Your task to perform on an android device: read, delete, or share a saved page in the chrome app Image 0: 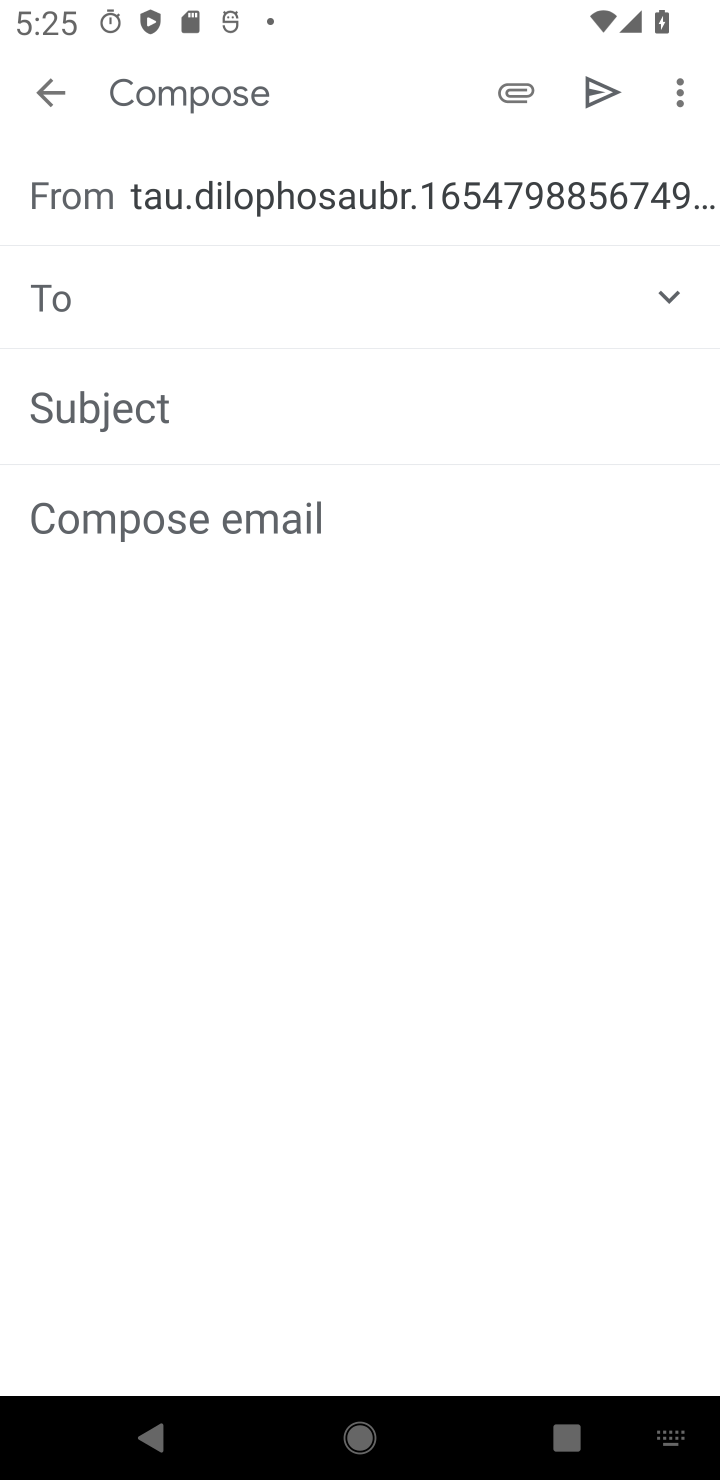
Step 0: click (51, 89)
Your task to perform on an android device: read, delete, or share a saved page in the chrome app Image 1: 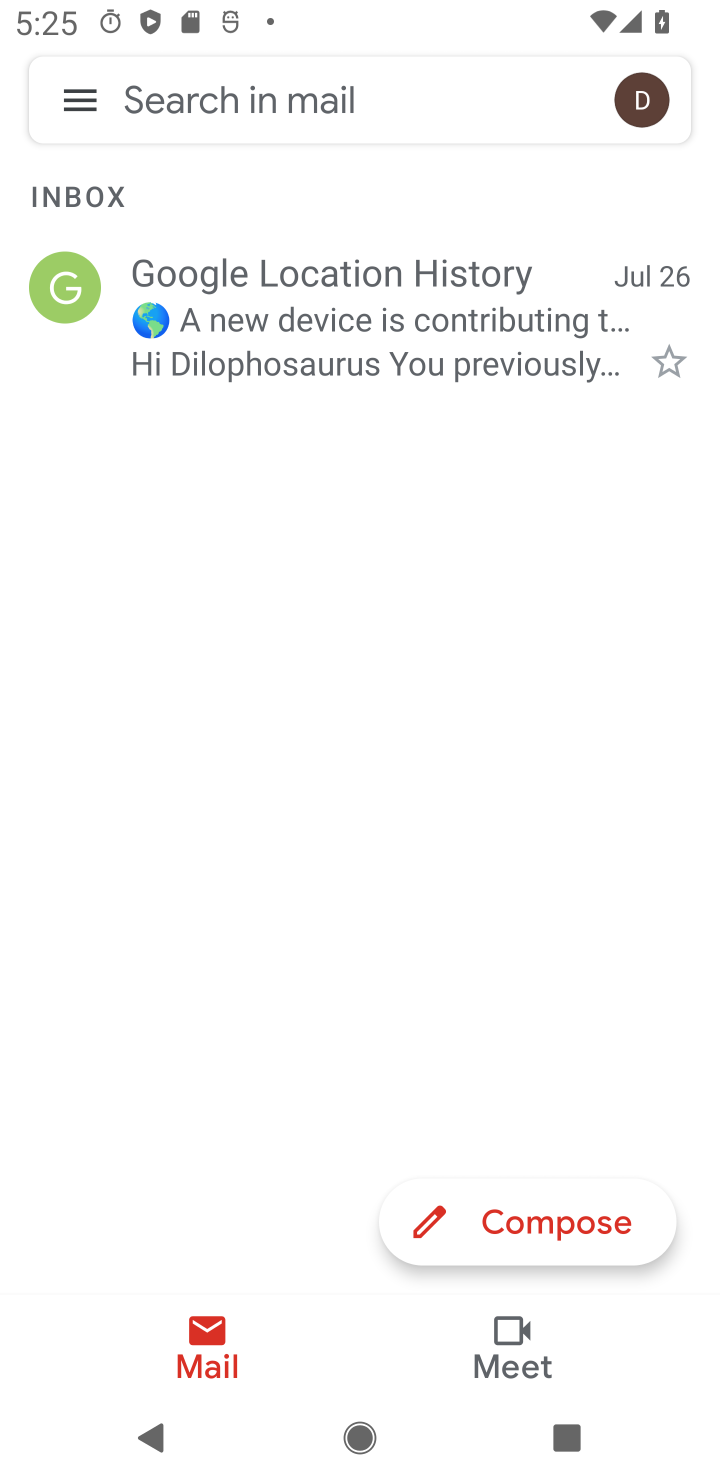
Step 1: press back button
Your task to perform on an android device: read, delete, or share a saved page in the chrome app Image 2: 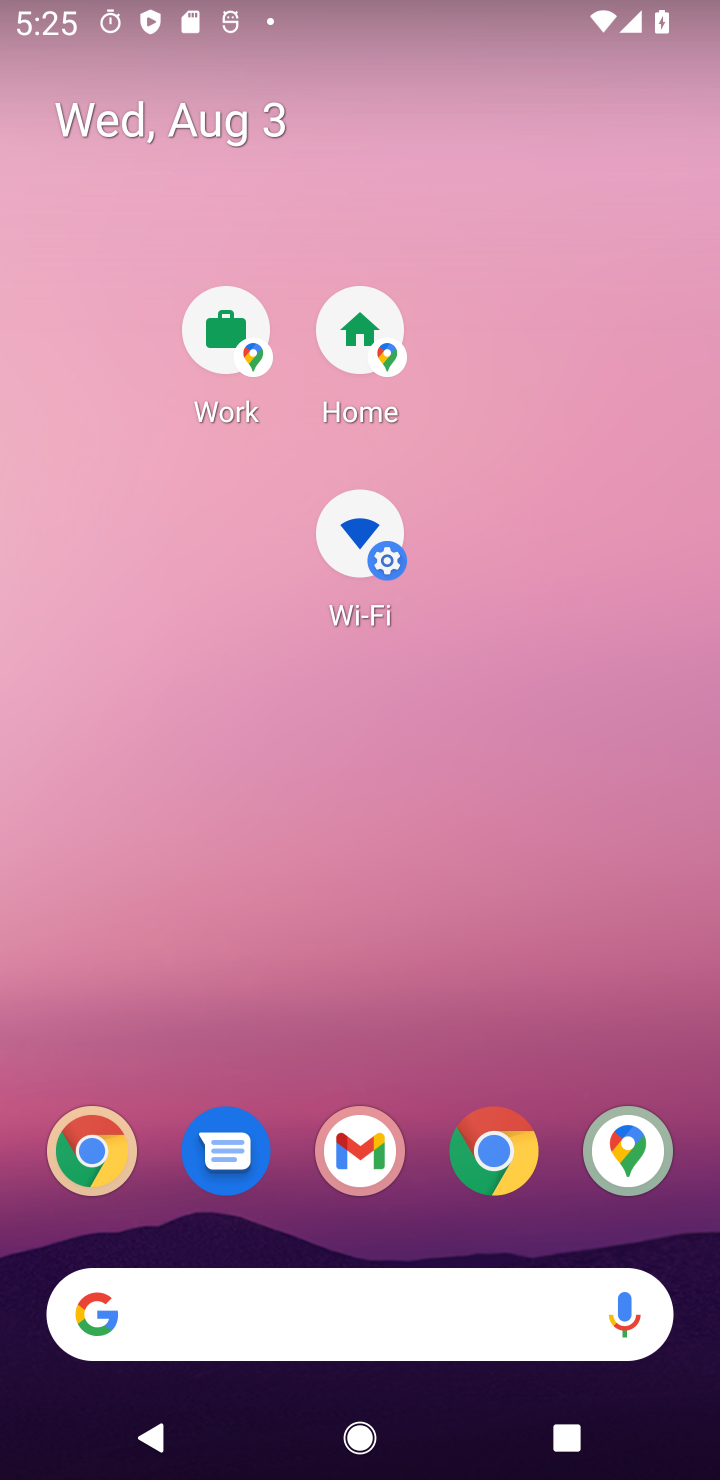
Step 2: drag from (435, 1320) to (341, 624)
Your task to perform on an android device: read, delete, or share a saved page in the chrome app Image 3: 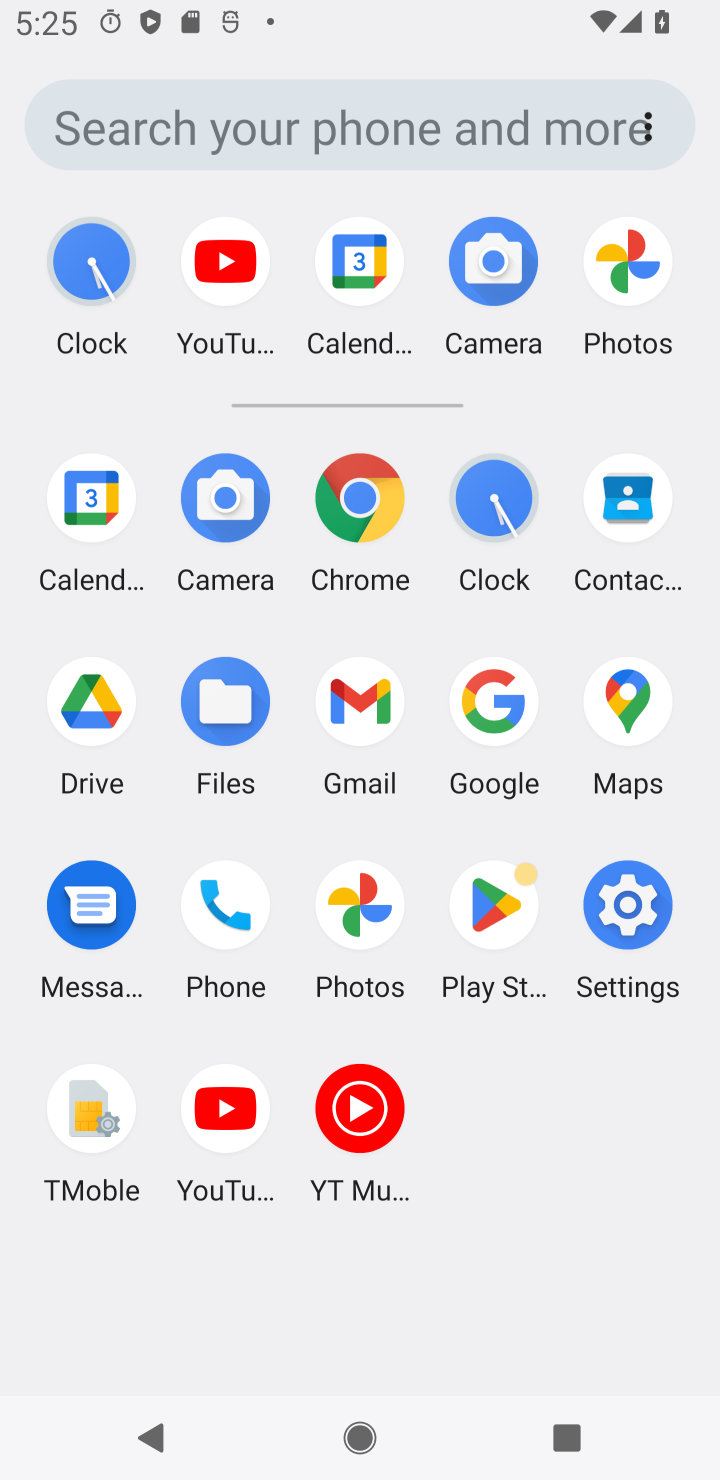
Step 3: drag from (443, 949) to (254, 294)
Your task to perform on an android device: read, delete, or share a saved page in the chrome app Image 4: 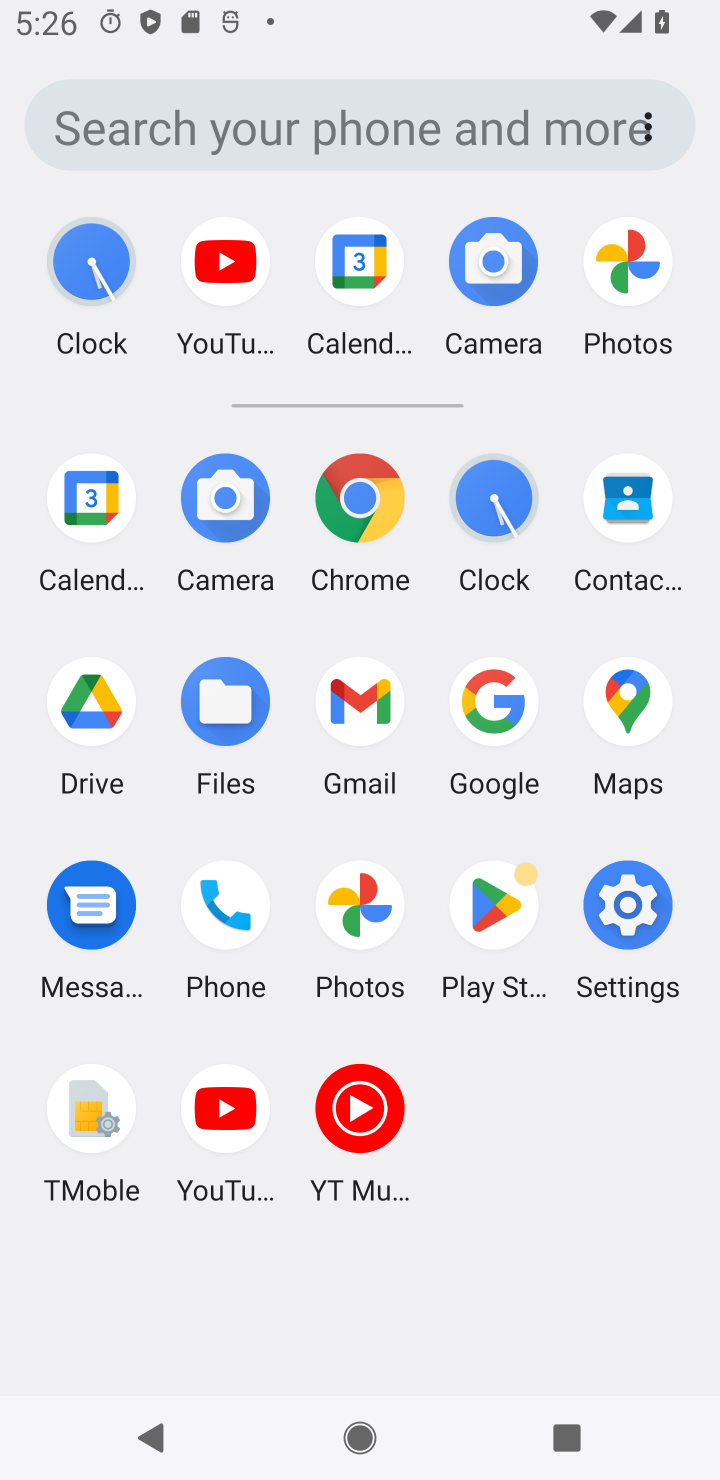
Step 4: click (347, 513)
Your task to perform on an android device: read, delete, or share a saved page in the chrome app Image 5: 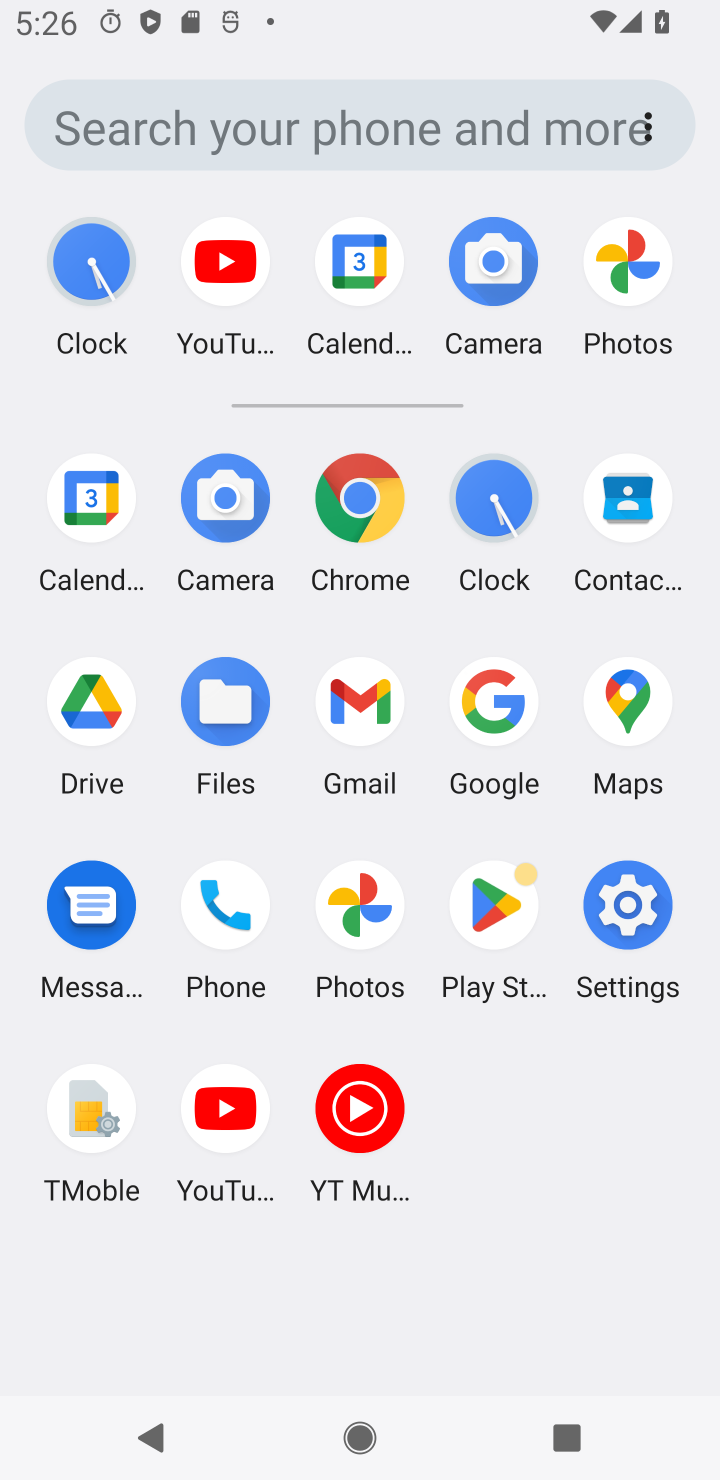
Step 5: click (347, 513)
Your task to perform on an android device: read, delete, or share a saved page in the chrome app Image 6: 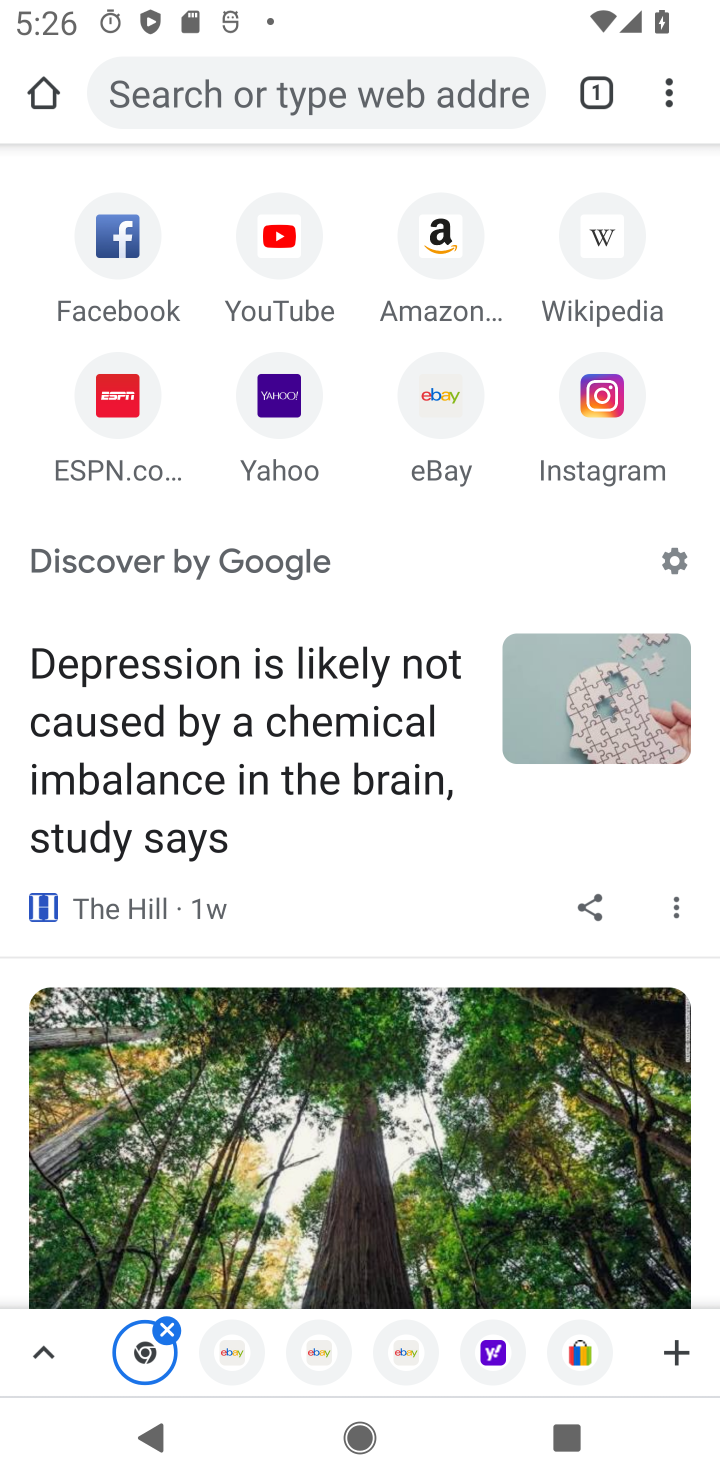
Step 6: drag from (655, 103) to (385, 588)
Your task to perform on an android device: read, delete, or share a saved page in the chrome app Image 7: 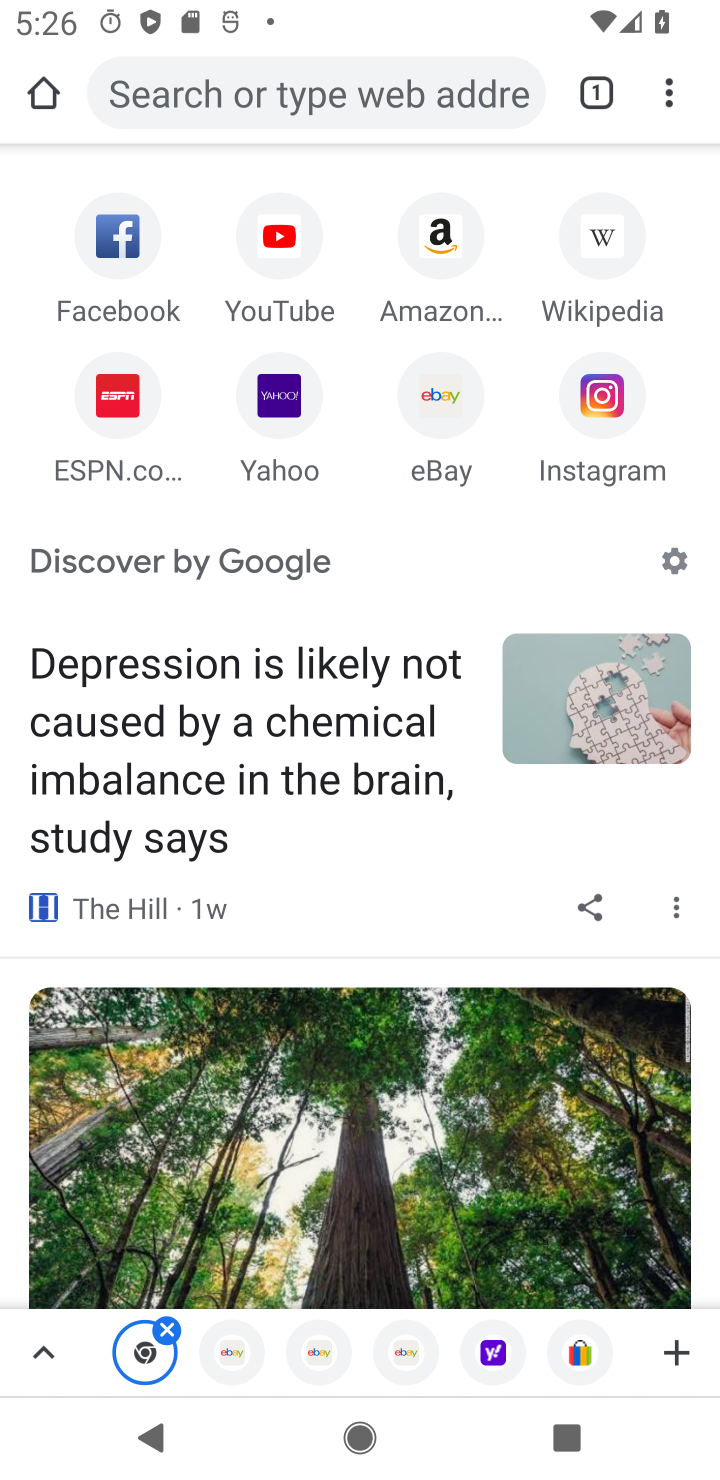
Step 7: click (392, 583)
Your task to perform on an android device: read, delete, or share a saved page in the chrome app Image 8: 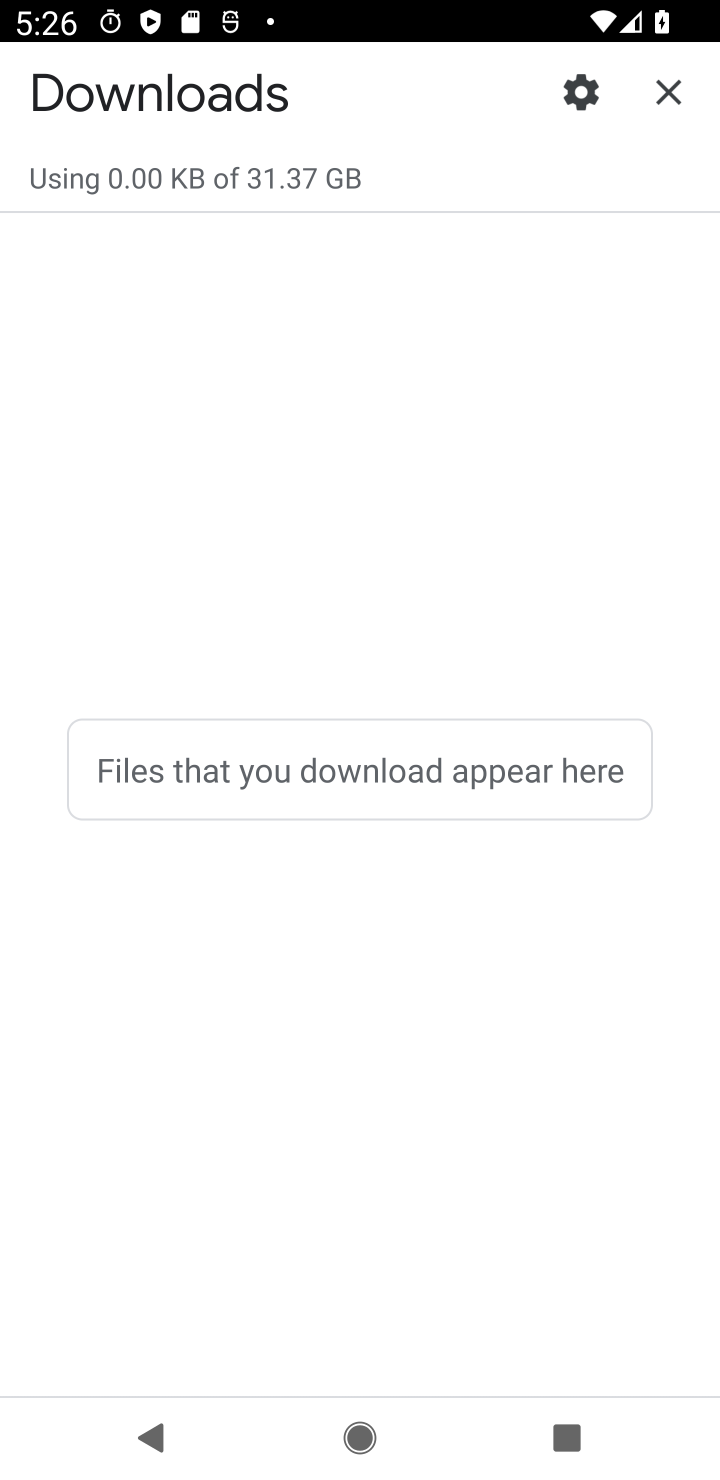
Step 8: click (286, 93)
Your task to perform on an android device: read, delete, or share a saved page in the chrome app Image 9: 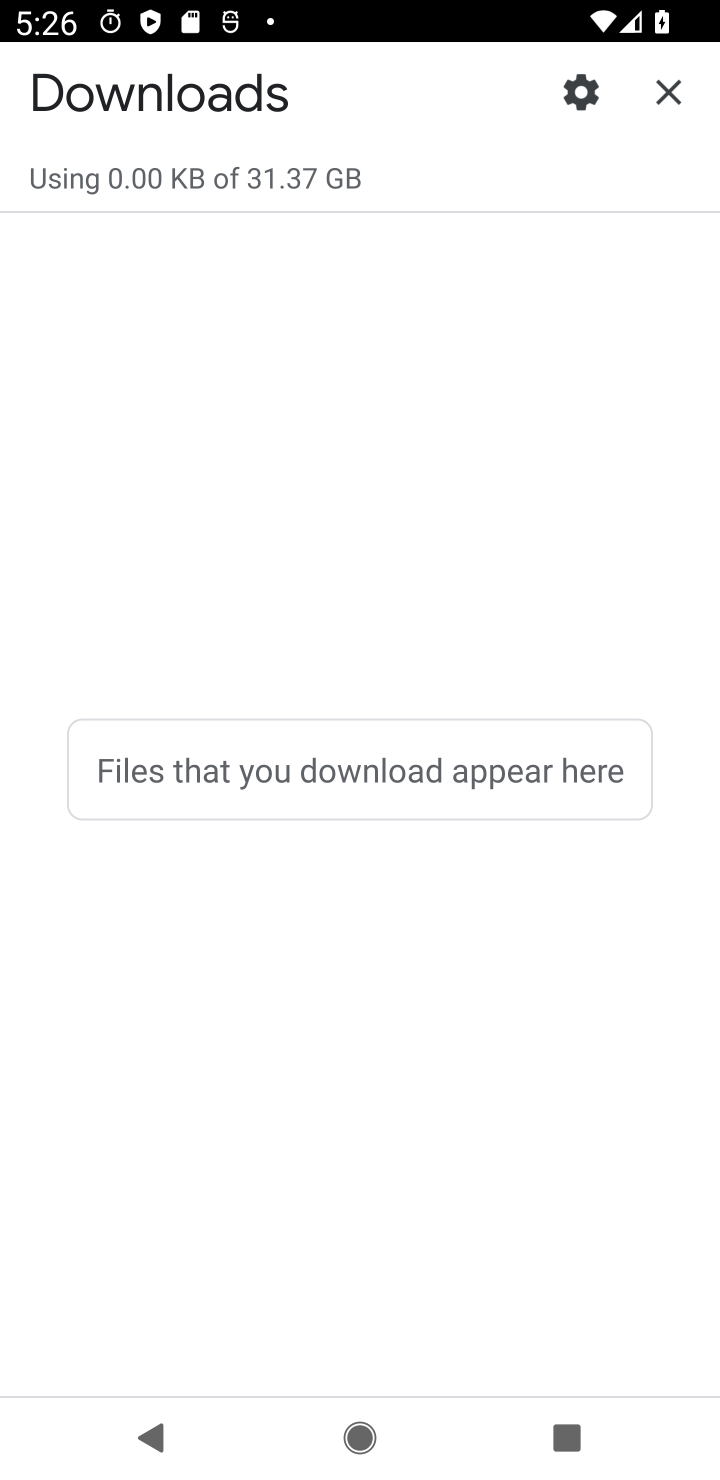
Step 9: click (284, 93)
Your task to perform on an android device: read, delete, or share a saved page in the chrome app Image 10: 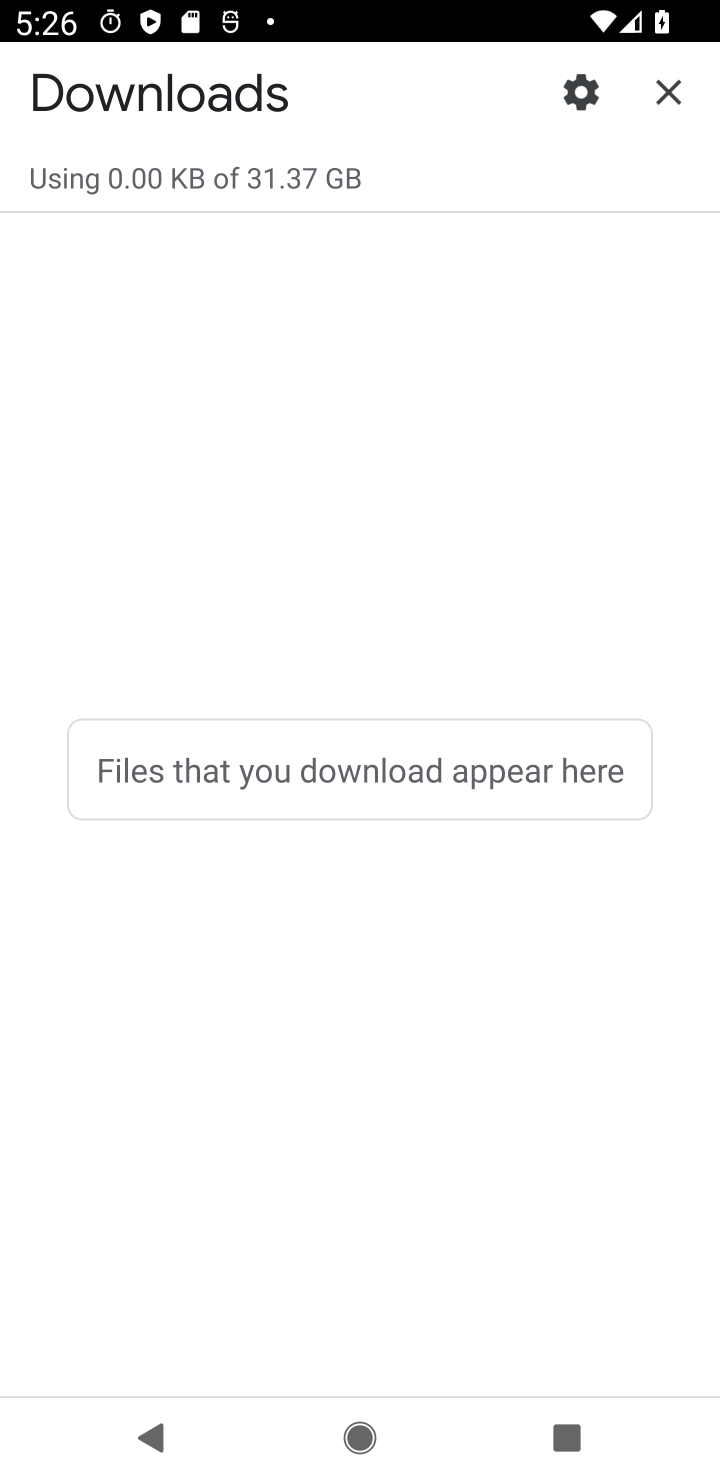
Step 10: click (284, 93)
Your task to perform on an android device: read, delete, or share a saved page in the chrome app Image 11: 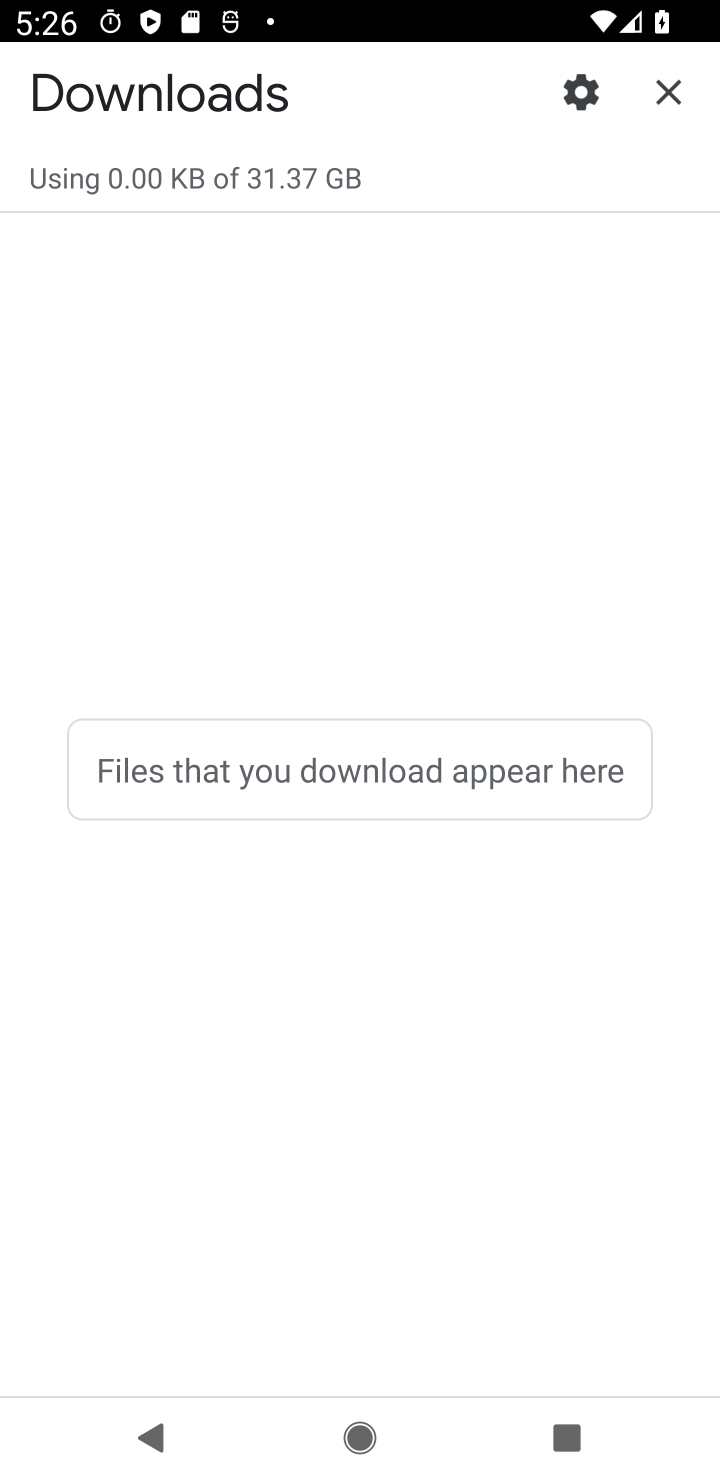
Step 11: click (133, 180)
Your task to perform on an android device: read, delete, or share a saved page in the chrome app Image 12: 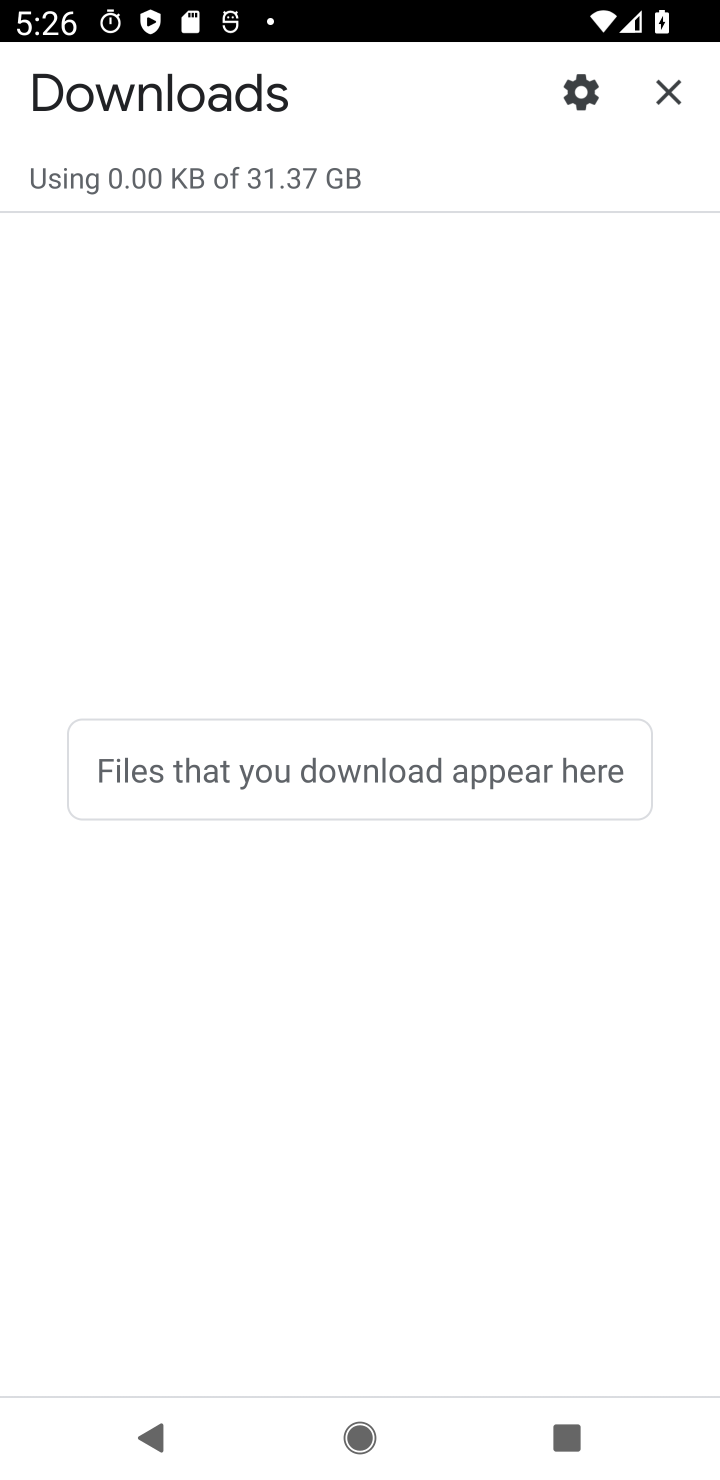
Step 12: click (159, 192)
Your task to perform on an android device: read, delete, or share a saved page in the chrome app Image 13: 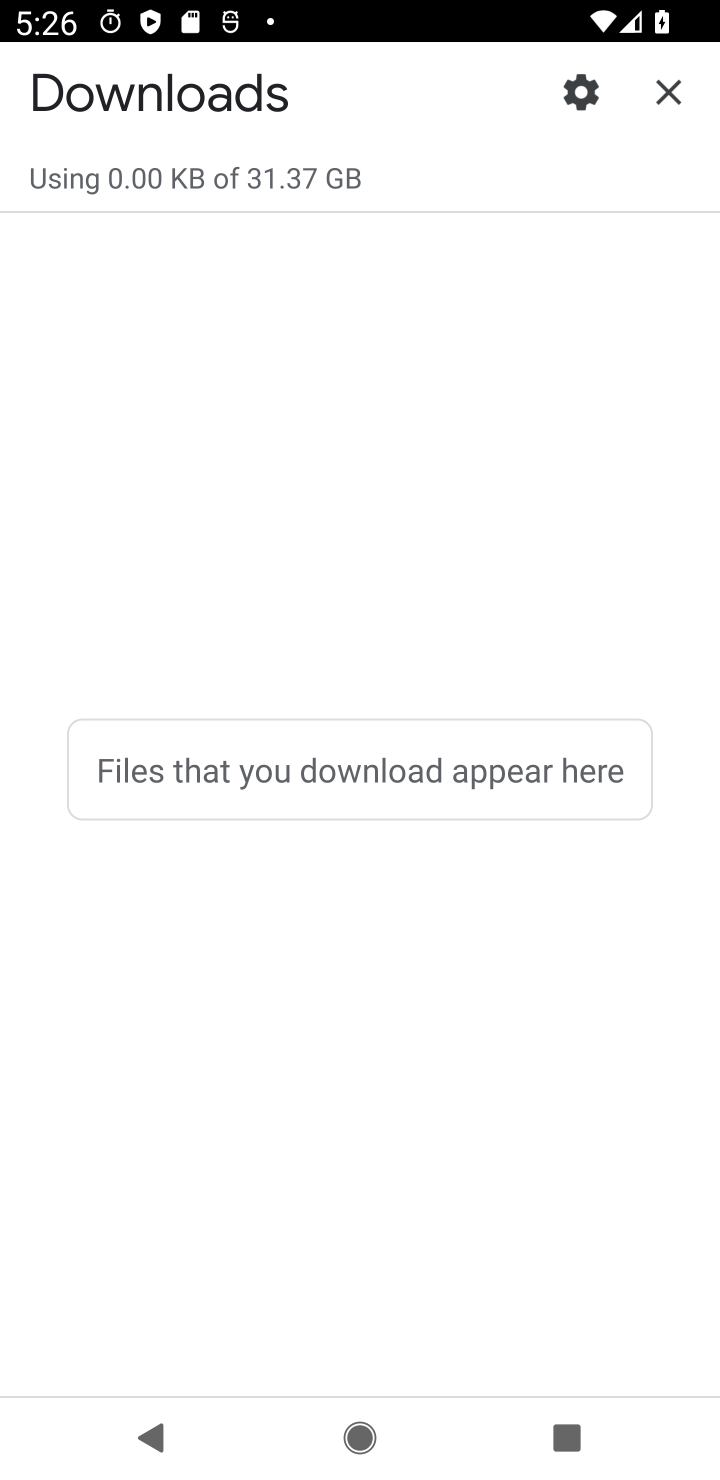
Step 13: click (168, 196)
Your task to perform on an android device: read, delete, or share a saved page in the chrome app Image 14: 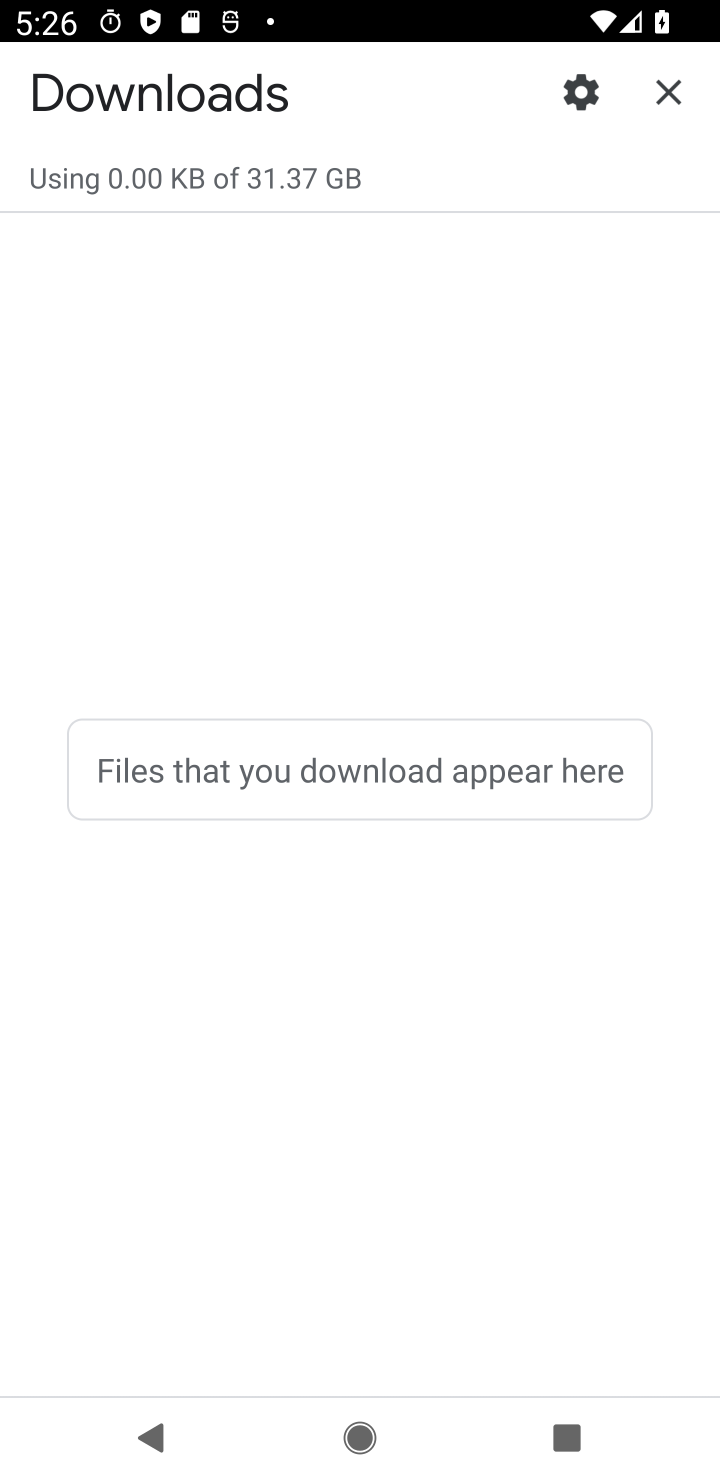
Step 14: click (170, 188)
Your task to perform on an android device: read, delete, or share a saved page in the chrome app Image 15: 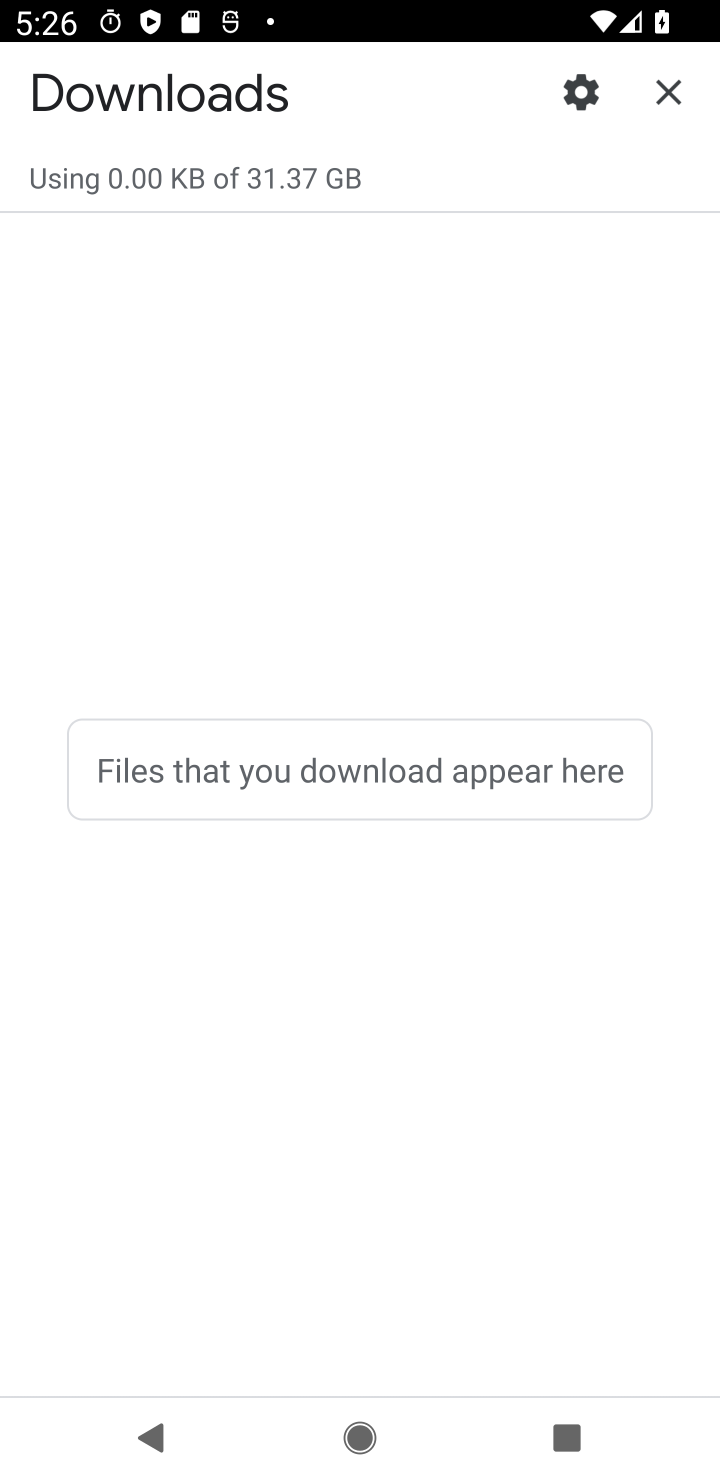
Step 15: click (212, 135)
Your task to perform on an android device: read, delete, or share a saved page in the chrome app Image 16: 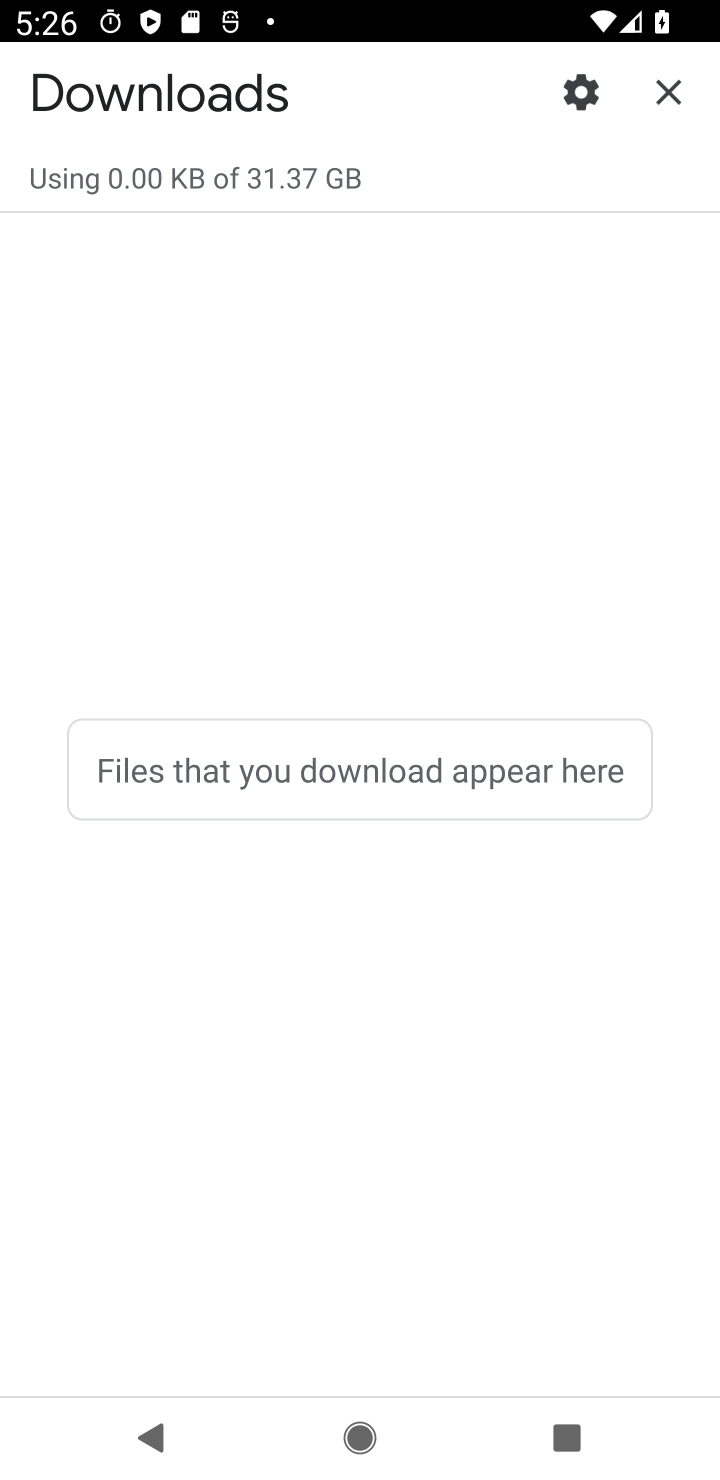
Step 16: click (254, 138)
Your task to perform on an android device: read, delete, or share a saved page in the chrome app Image 17: 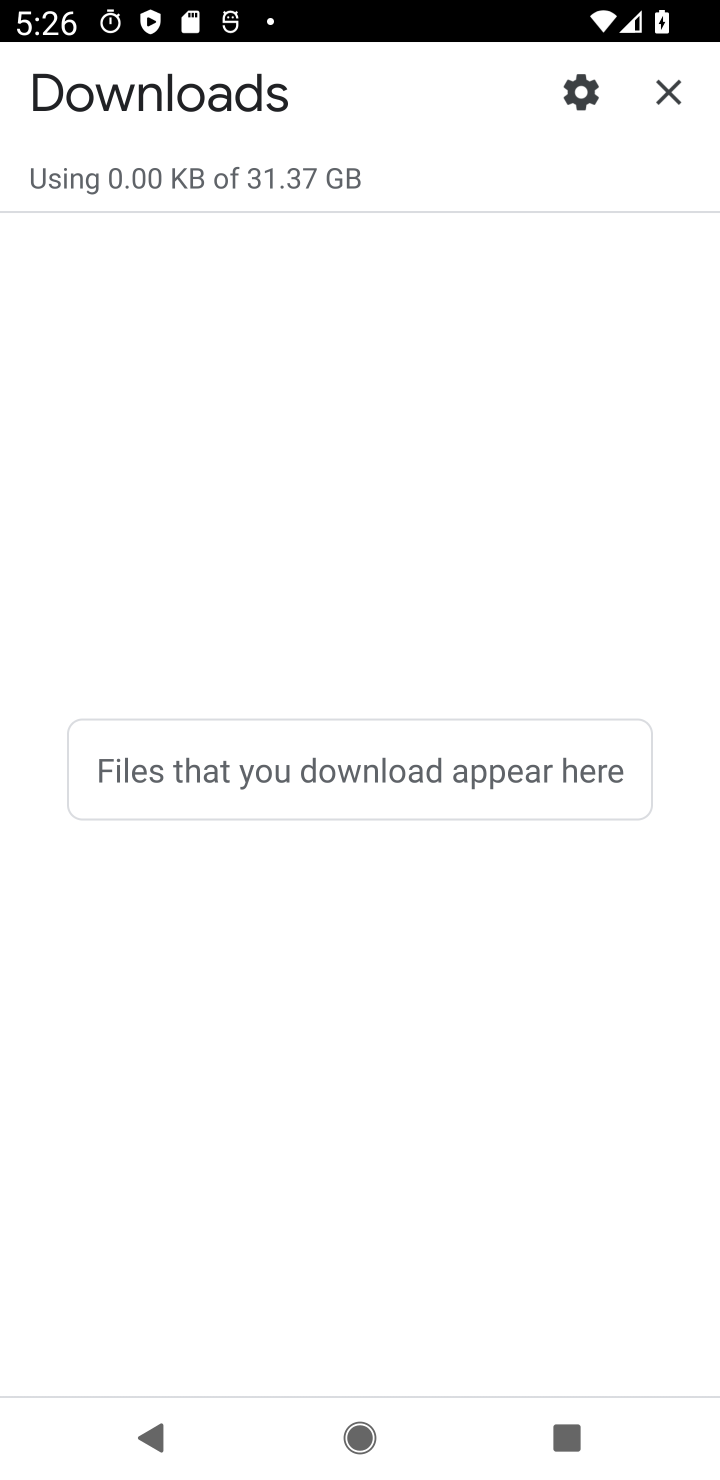
Step 17: click (387, 796)
Your task to perform on an android device: read, delete, or share a saved page in the chrome app Image 18: 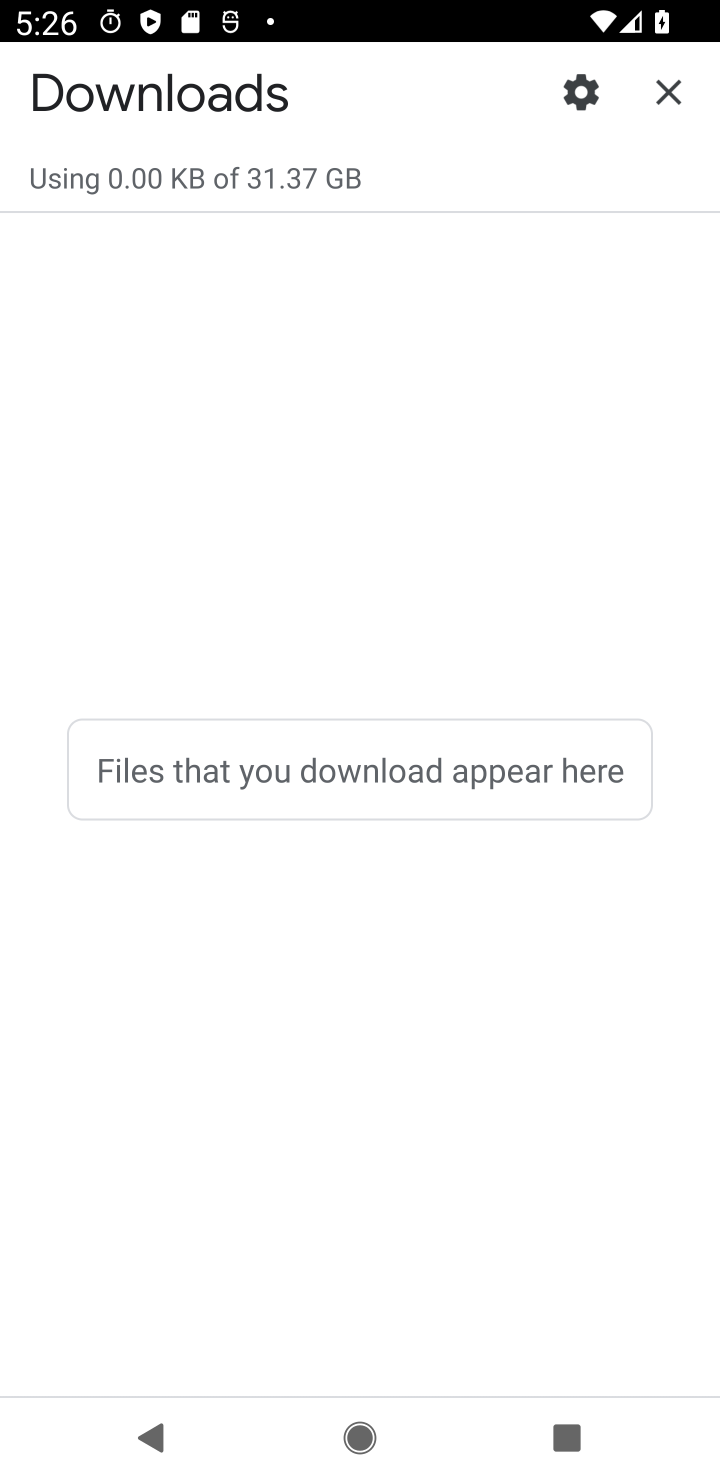
Step 18: click (389, 775)
Your task to perform on an android device: read, delete, or share a saved page in the chrome app Image 19: 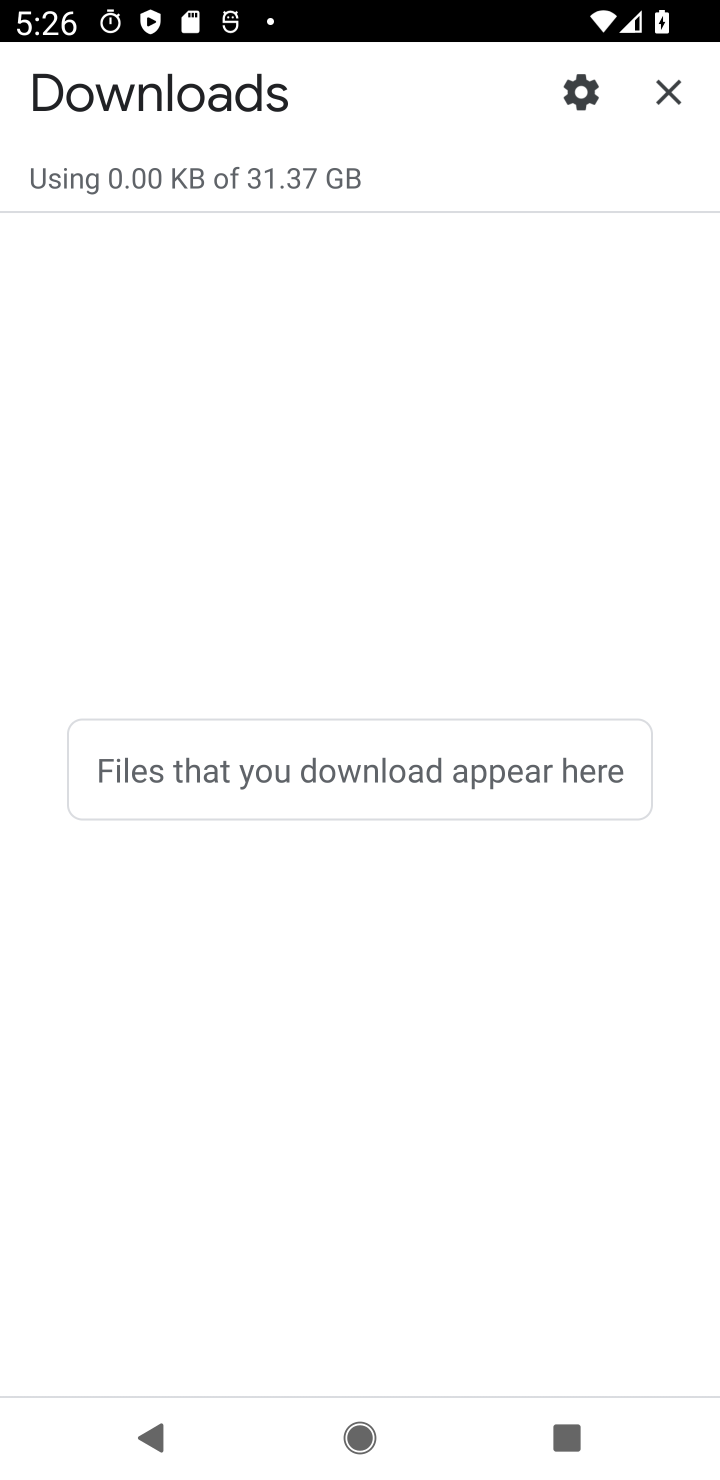
Step 19: click (46, 110)
Your task to perform on an android device: read, delete, or share a saved page in the chrome app Image 20: 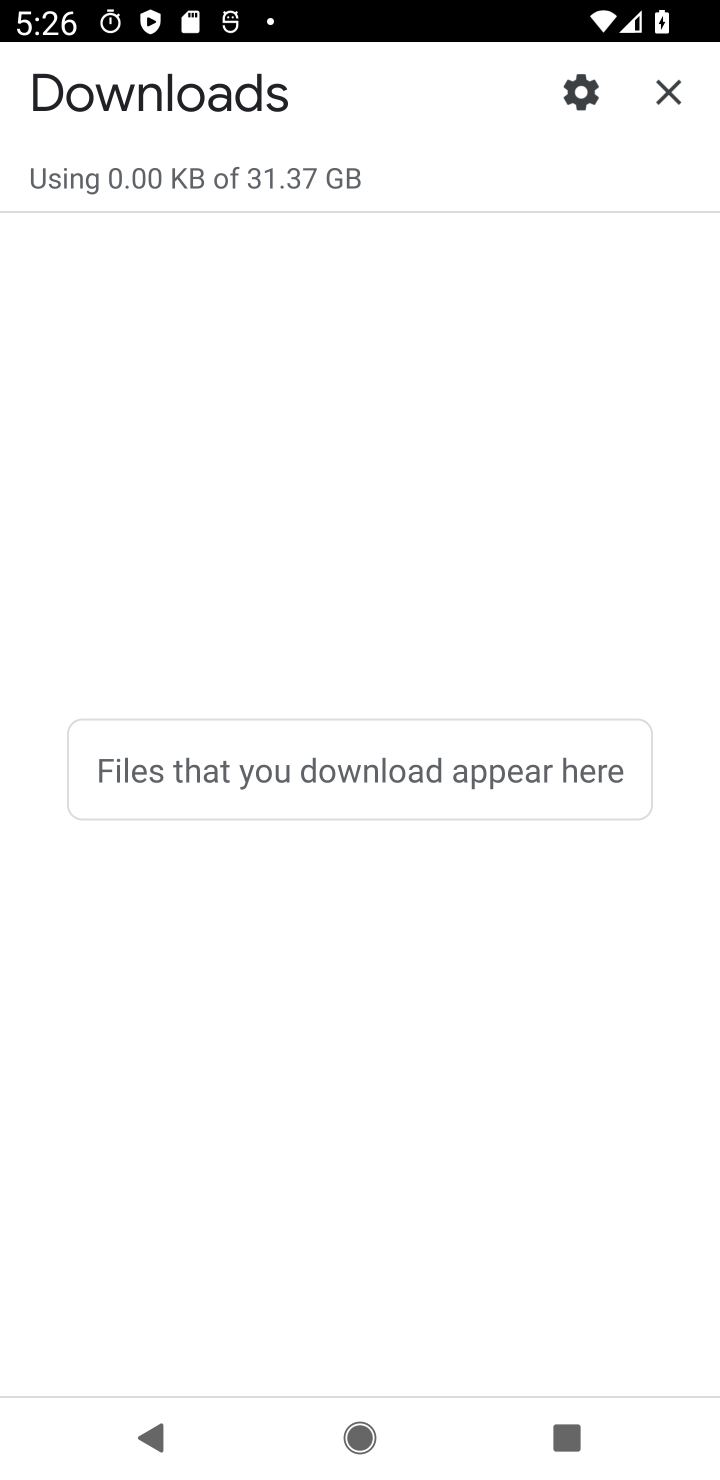
Step 20: click (196, 95)
Your task to perform on an android device: read, delete, or share a saved page in the chrome app Image 21: 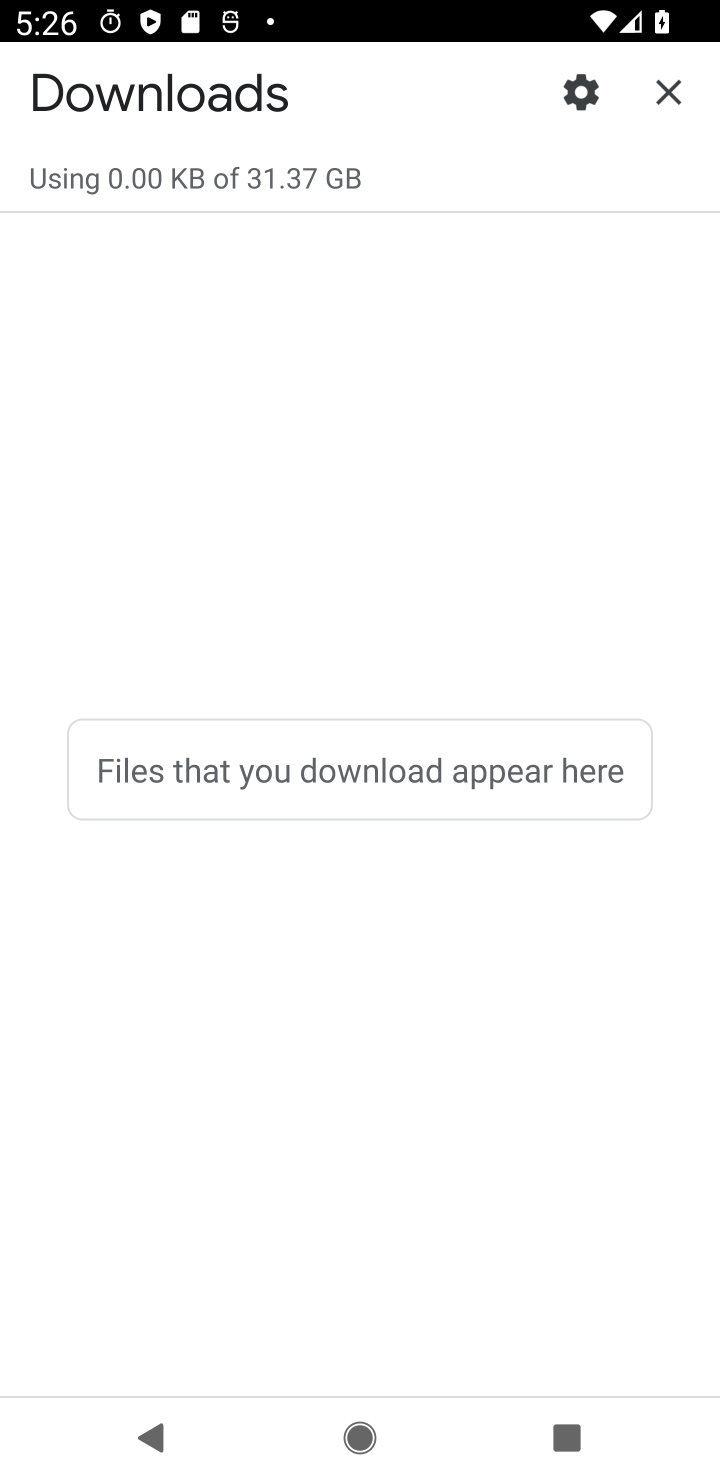
Step 21: task complete